Your task to perform on an android device: Do I have any events today? Image 0: 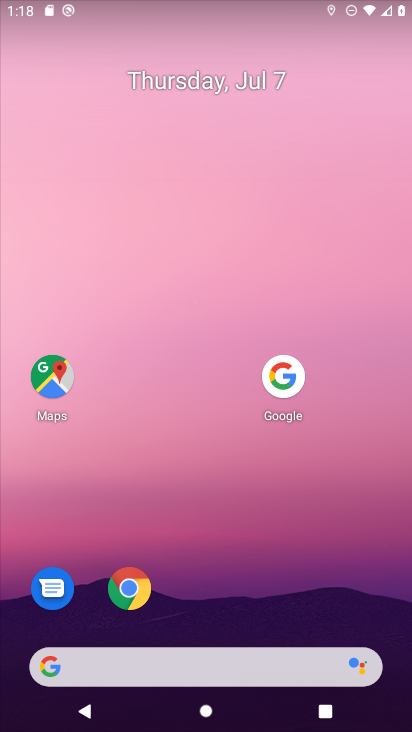
Step 0: drag from (169, 662) to (347, 0)
Your task to perform on an android device: Do I have any events today? Image 1: 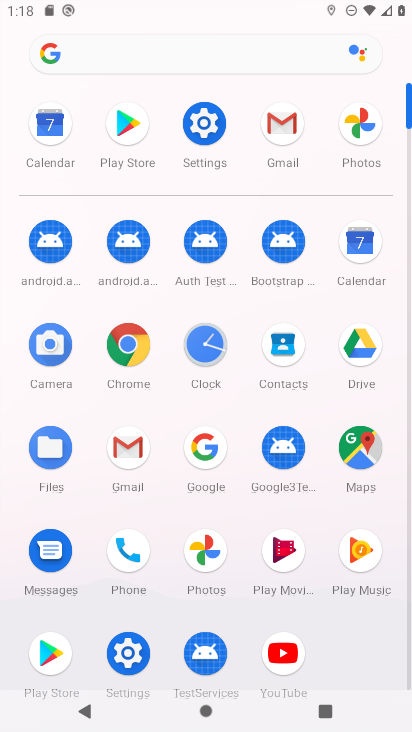
Step 1: click (374, 244)
Your task to perform on an android device: Do I have any events today? Image 2: 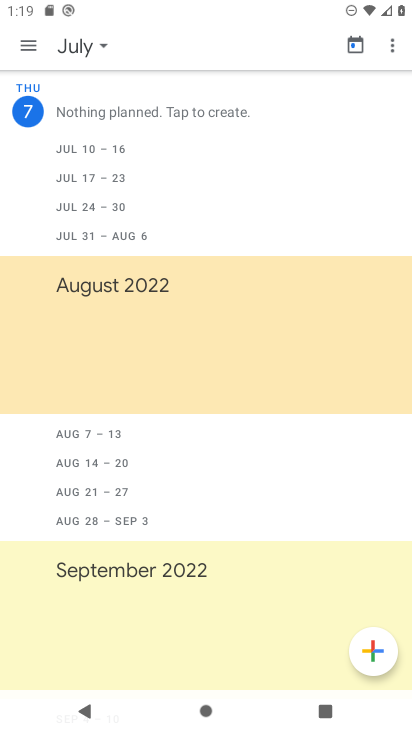
Step 2: task complete